Your task to perform on an android device: Open notification settings Image 0: 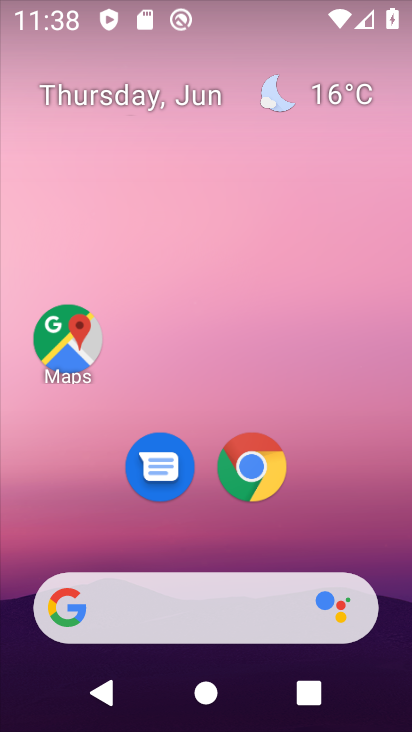
Step 0: drag from (395, 622) to (302, 121)
Your task to perform on an android device: Open notification settings Image 1: 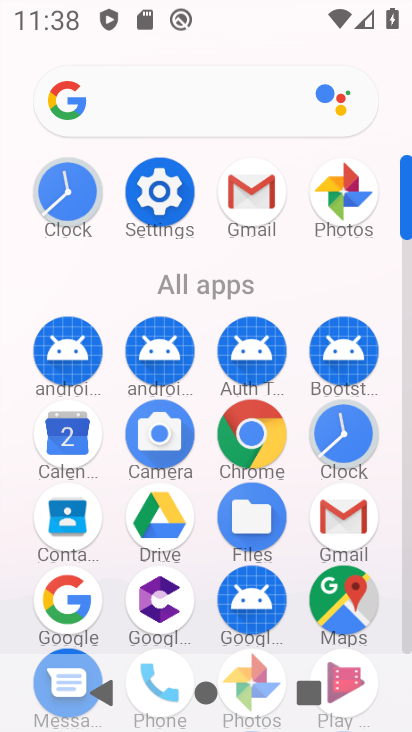
Step 1: click (408, 643)
Your task to perform on an android device: Open notification settings Image 2: 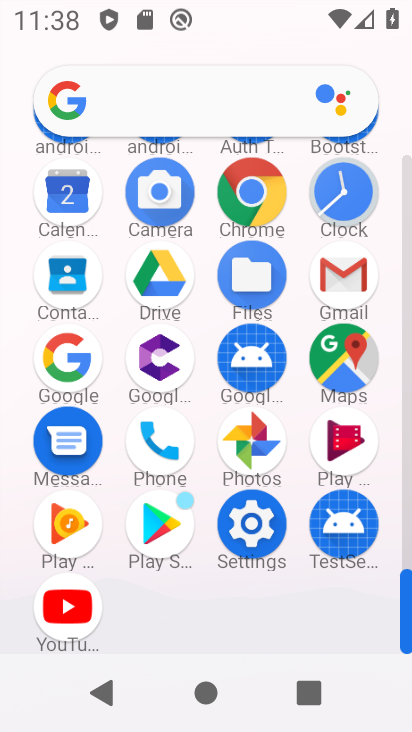
Step 2: click (252, 526)
Your task to perform on an android device: Open notification settings Image 3: 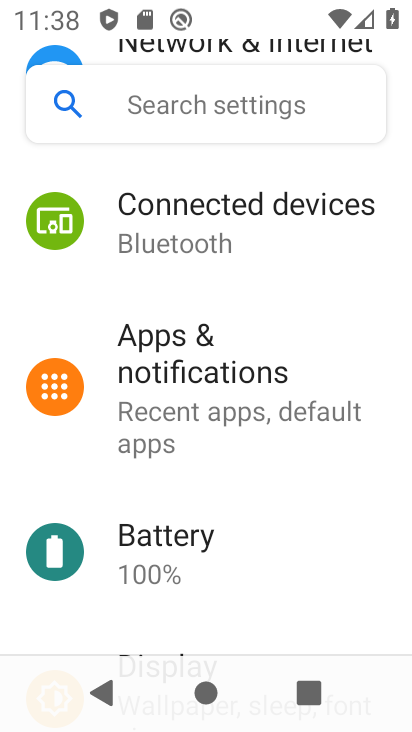
Step 3: click (169, 365)
Your task to perform on an android device: Open notification settings Image 4: 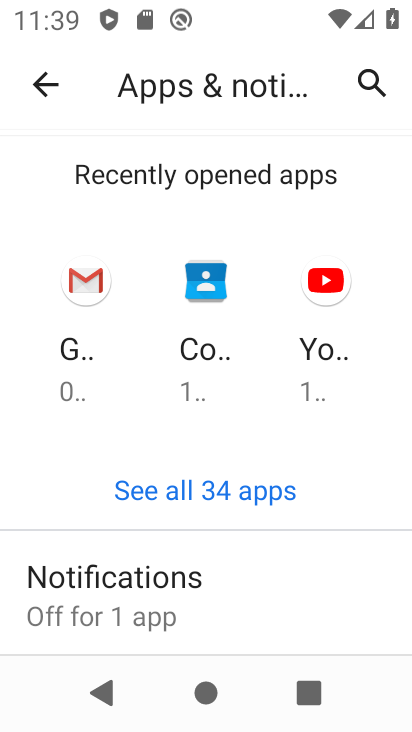
Step 4: drag from (314, 602) to (302, 210)
Your task to perform on an android device: Open notification settings Image 5: 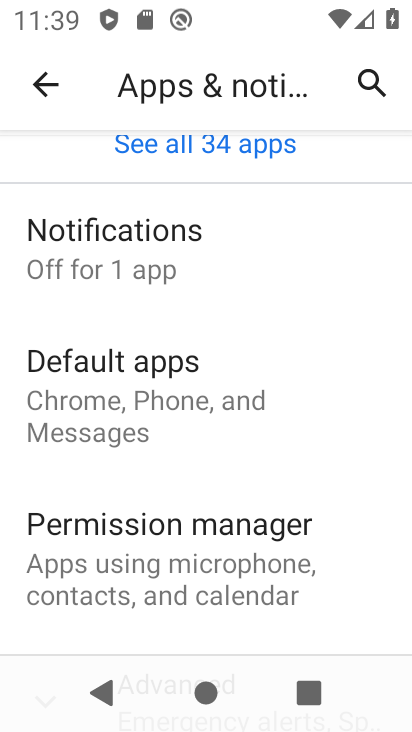
Step 5: click (69, 254)
Your task to perform on an android device: Open notification settings Image 6: 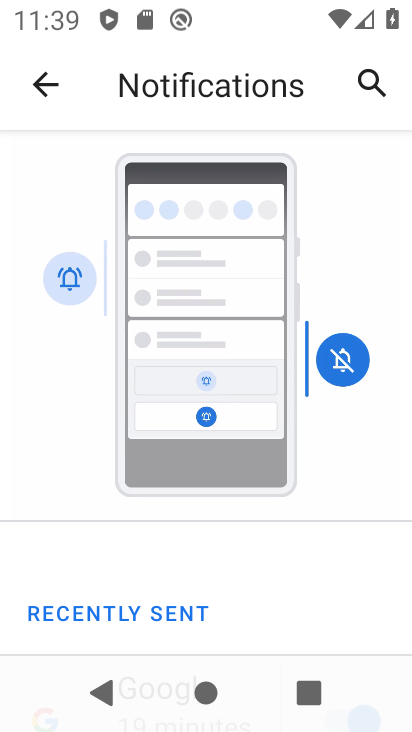
Step 6: drag from (288, 630) to (264, 152)
Your task to perform on an android device: Open notification settings Image 7: 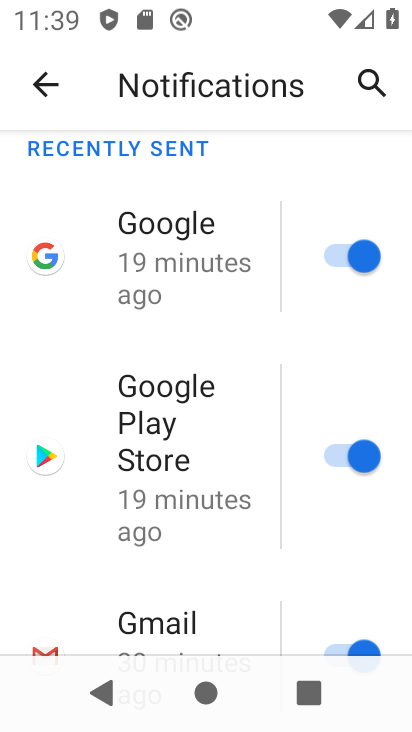
Step 7: drag from (282, 629) to (273, 120)
Your task to perform on an android device: Open notification settings Image 8: 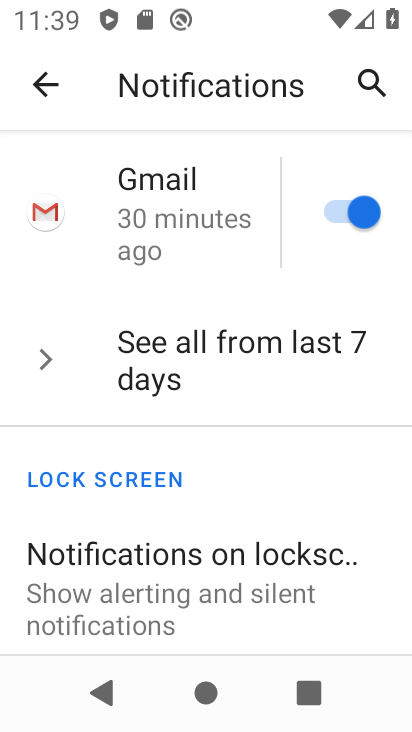
Step 8: drag from (285, 575) to (271, 140)
Your task to perform on an android device: Open notification settings Image 9: 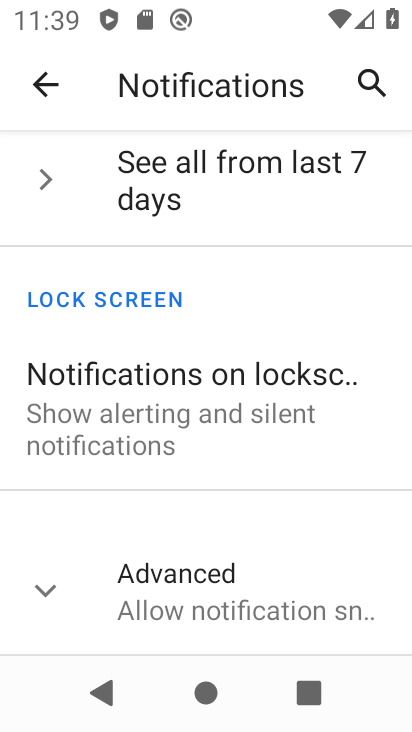
Step 9: click (46, 594)
Your task to perform on an android device: Open notification settings Image 10: 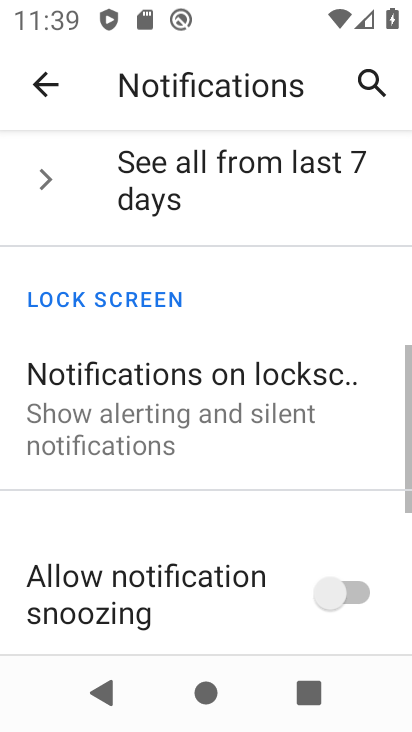
Step 10: task complete